Your task to perform on an android device: Is it going to rain this weekend? Image 0: 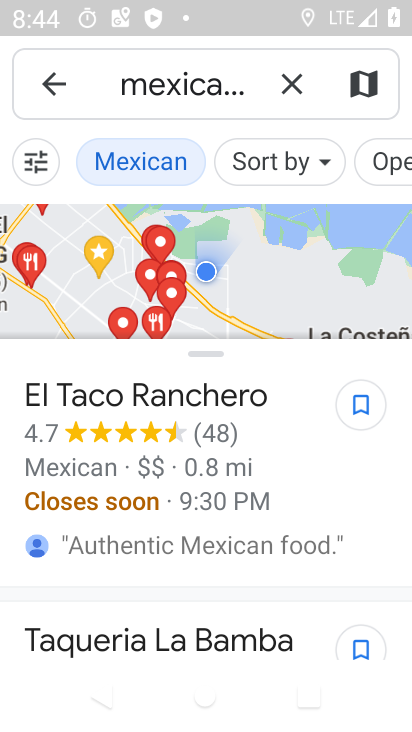
Step 0: press home button
Your task to perform on an android device: Is it going to rain this weekend? Image 1: 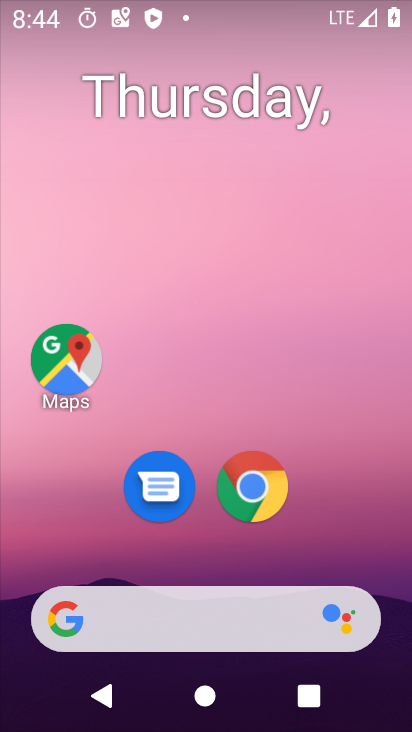
Step 1: drag from (223, 510) to (243, 193)
Your task to perform on an android device: Is it going to rain this weekend? Image 2: 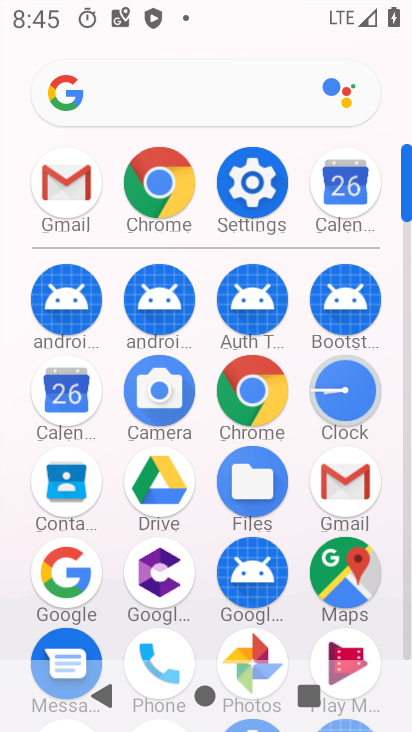
Step 2: click (66, 580)
Your task to perform on an android device: Is it going to rain this weekend? Image 3: 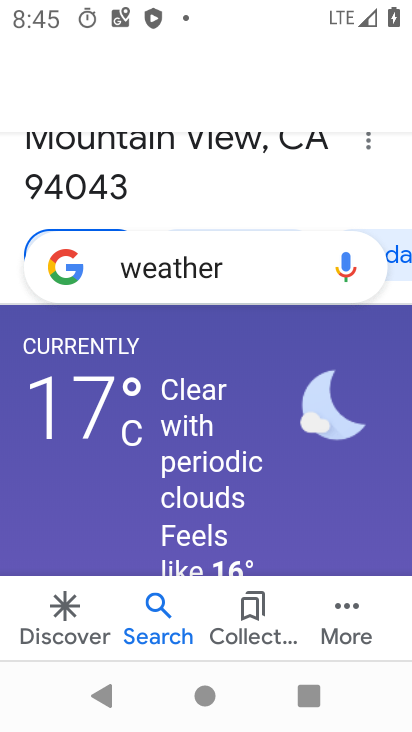
Step 3: drag from (224, 452) to (270, 729)
Your task to perform on an android device: Is it going to rain this weekend? Image 4: 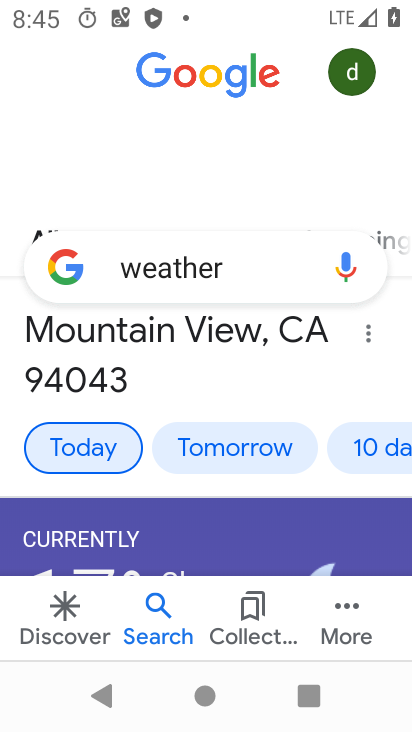
Step 4: click (373, 447)
Your task to perform on an android device: Is it going to rain this weekend? Image 5: 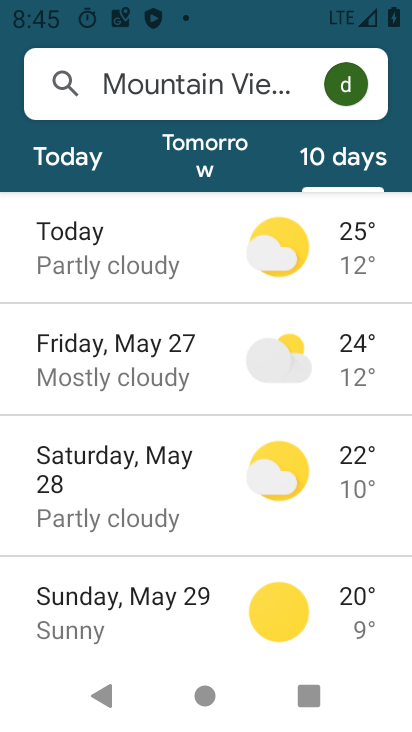
Step 5: task complete